Your task to perform on an android device: set default search engine in the chrome app Image 0: 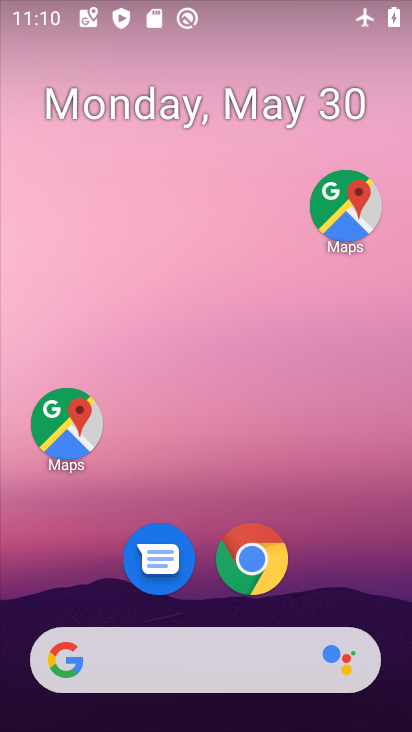
Step 0: click (256, 560)
Your task to perform on an android device: set default search engine in the chrome app Image 1: 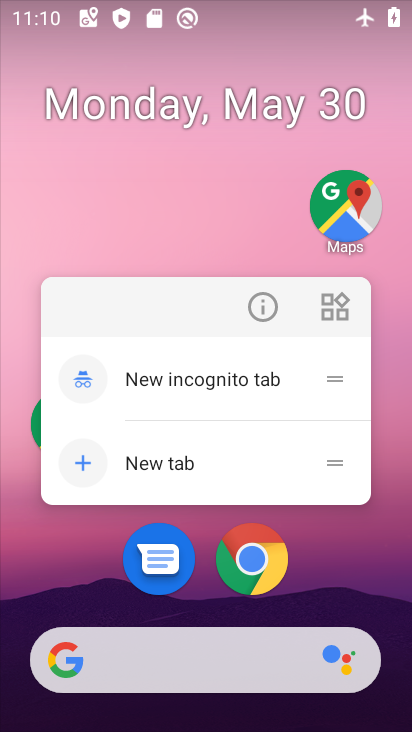
Step 1: click (252, 566)
Your task to perform on an android device: set default search engine in the chrome app Image 2: 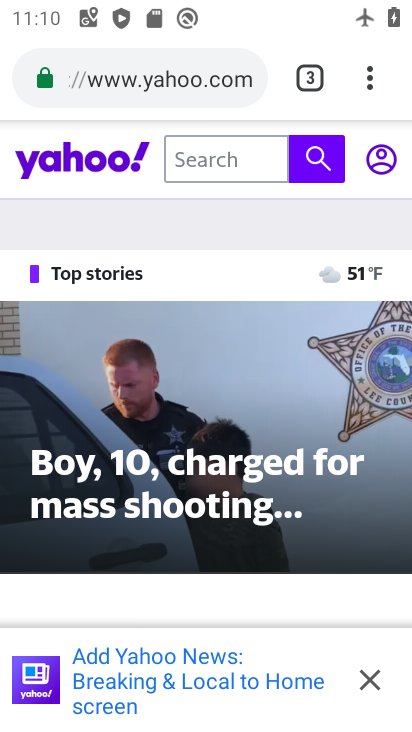
Step 2: drag from (372, 76) to (132, 632)
Your task to perform on an android device: set default search engine in the chrome app Image 3: 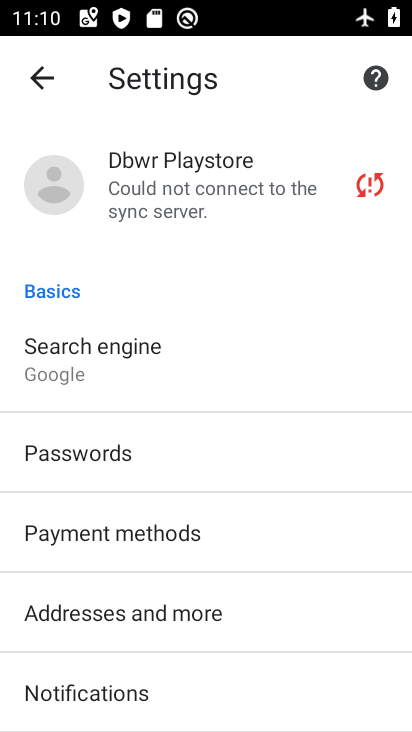
Step 3: click (123, 363)
Your task to perform on an android device: set default search engine in the chrome app Image 4: 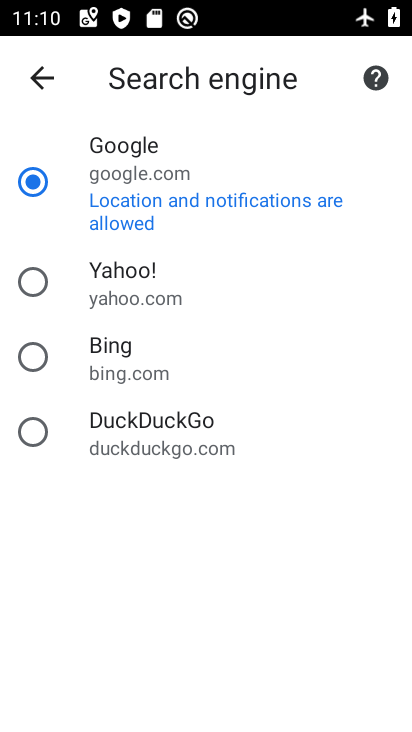
Step 4: task complete